Your task to perform on an android device: show emergency info Image 0: 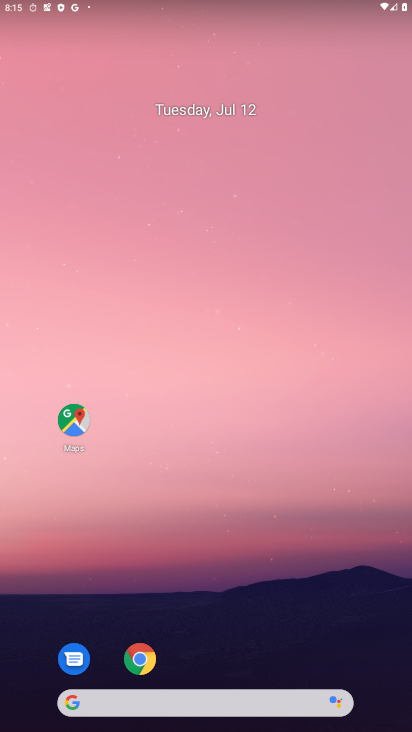
Step 0: drag from (207, 720) to (400, 293)
Your task to perform on an android device: show emergency info Image 1: 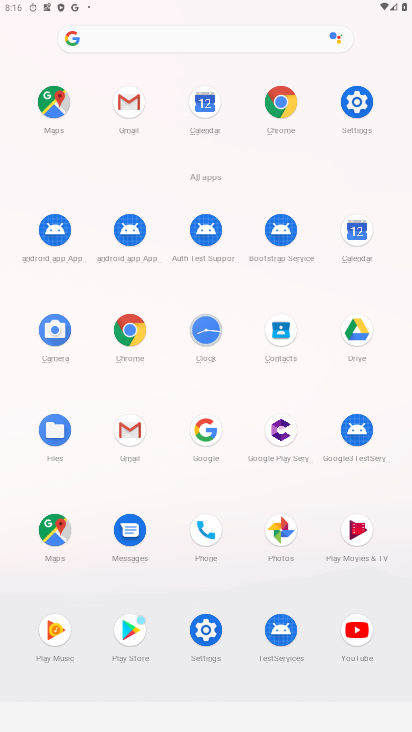
Step 1: click (365, 114)
Your task to perform on an android device: show emergency info Image 2: 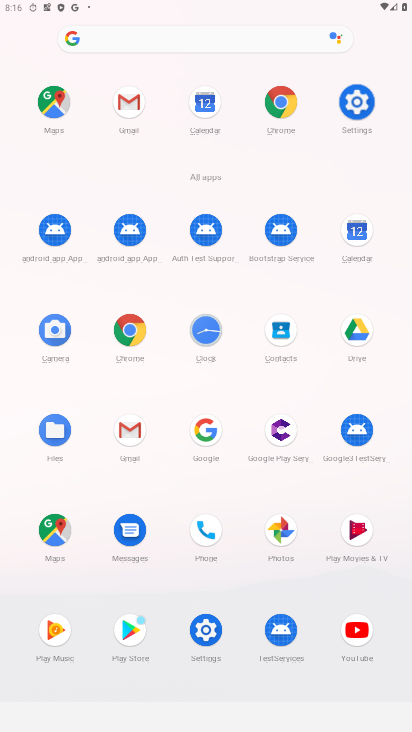
Step 2: click (365, 114)
Your task to perform on an android device: show emergency info Image 3: 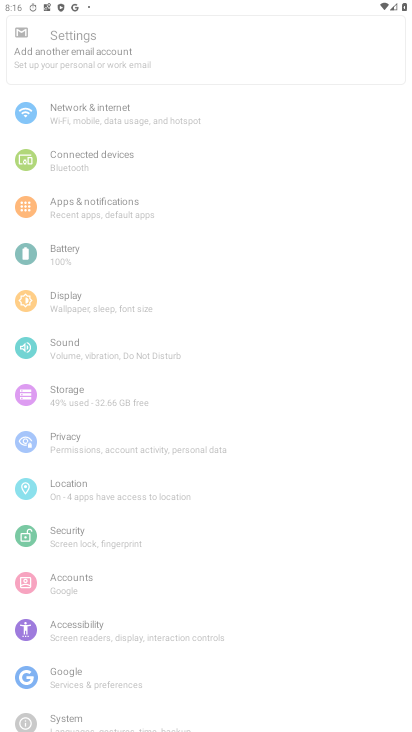
Step 3: click (365, 114)
Your task to perform on an android device: show emergency info Image 4: 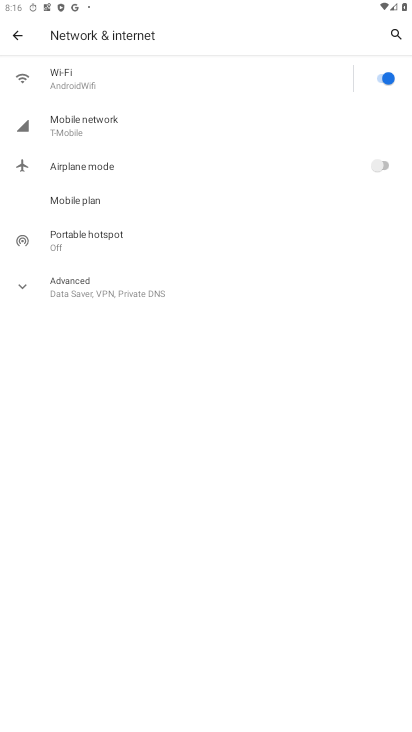
Step 4: click (11, 38)
Your task to perform on an android device: show emergency info Image 5: 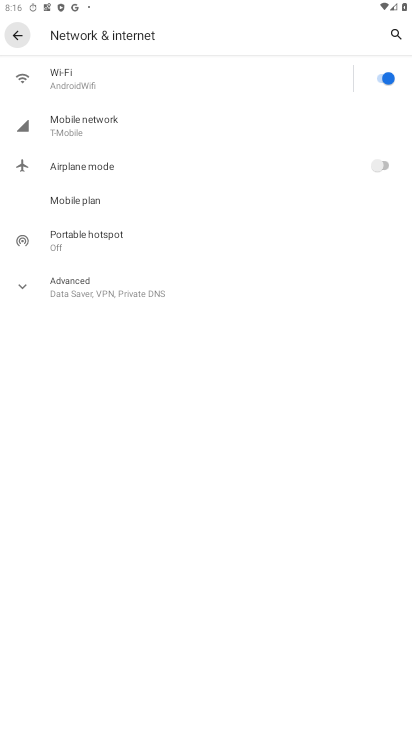
Step 5: click (11, 38)
Your task to perform on an android device: show emergency info Image 6: 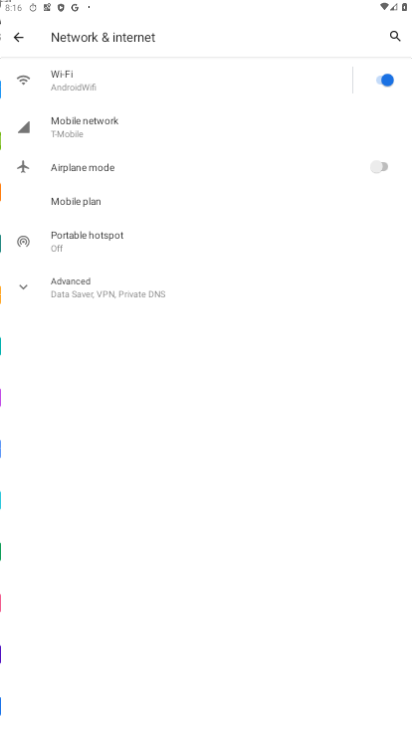
Step 6: click (6, 27)
Your task to perform on an android device: show emergency info Image 7: 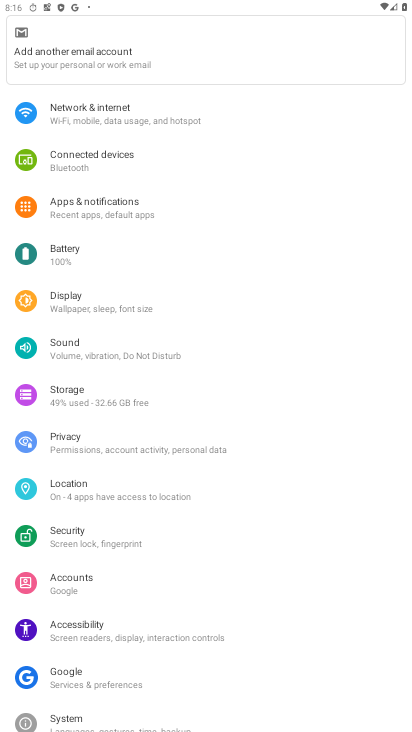
Step 7: drag from (169, 612) to (95, 177)
Your task to perform on an android device: show emergency info Image 8: 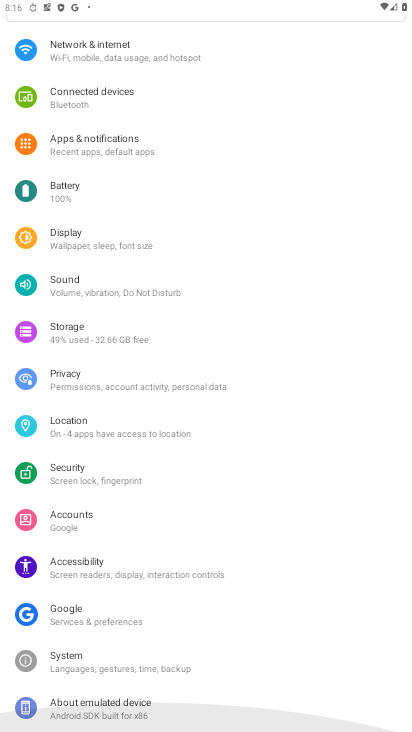
Step 8: drag from (151, 477) to (168, 198)
Your task to perform on an android device: show emergency info Image 9: 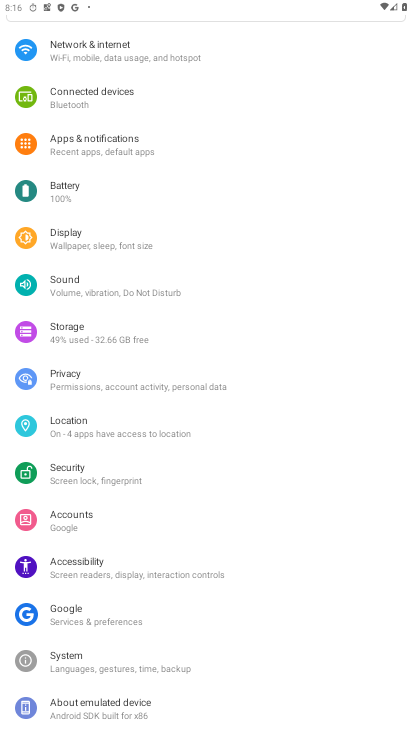
Step 9: click (90, 712)
Your task to perform on an android device: show emergency info Image 10: 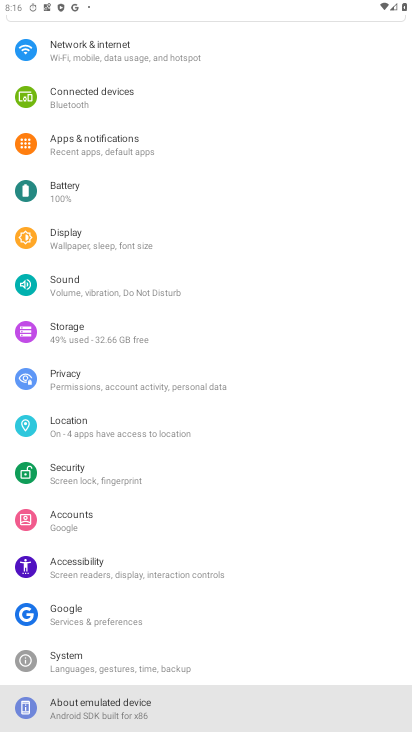
Step 10: click (94, 712)
Your task to perform on an android device: show emergency info Image 11: 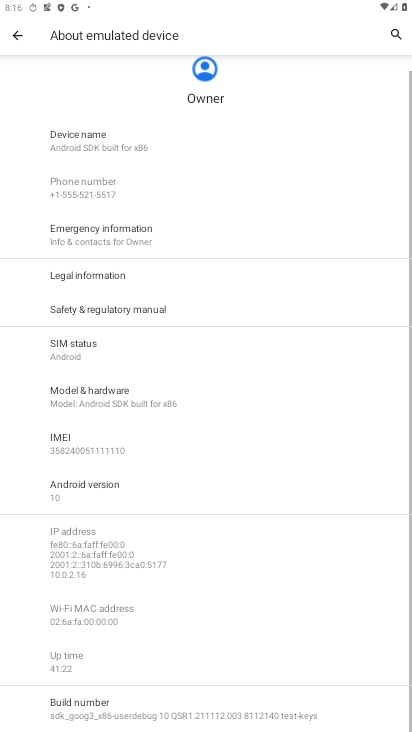
Step 11: task complete